Your task to perform on an android device: toggle sleep mode Image 0: 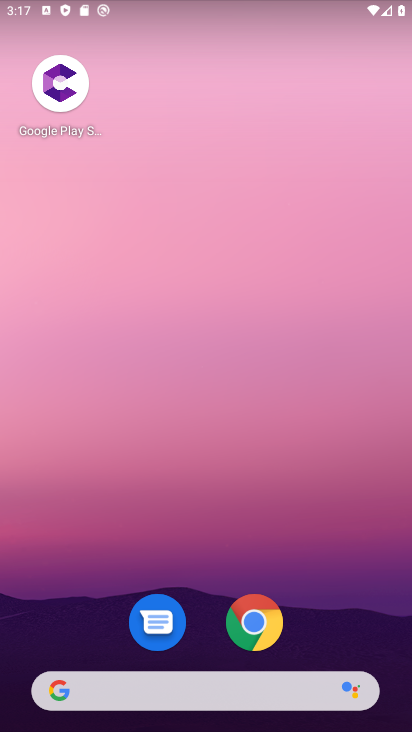
Step 0: drag from (236, 731) to (248, 22)
Your task to perform on an android device: toggle sleep mode Image 1: 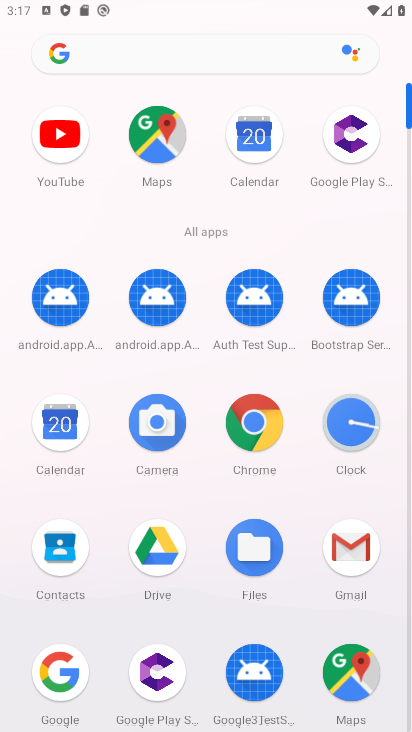
Step 1: drag from (303, 613) to (266, 9)
Your task to perform on an android device: toggle sleep mode Image 2: 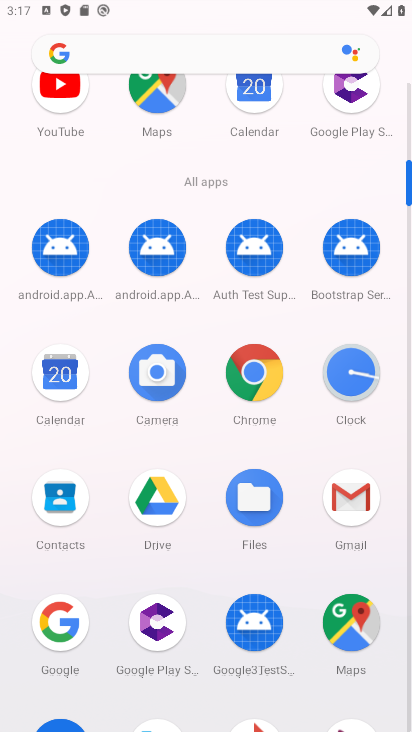
Step 2: drag from (336, 704) to (267, 63)
Your task to perform on an android device: toggle sleep mode Image 3: 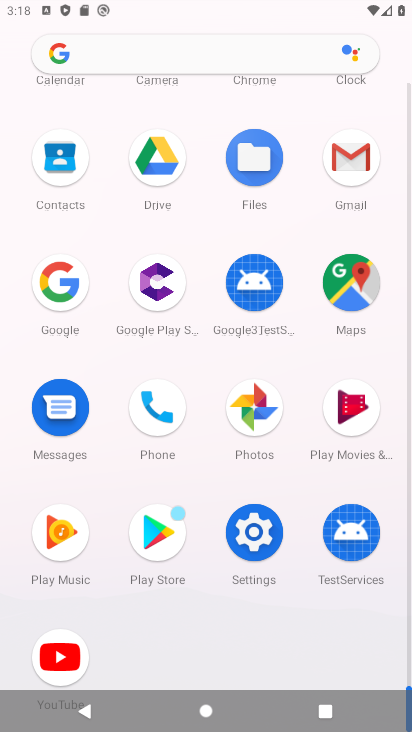
Step 3: click (246, 543)
Your task to perform on an android device: toggle sleep mode Image 4: 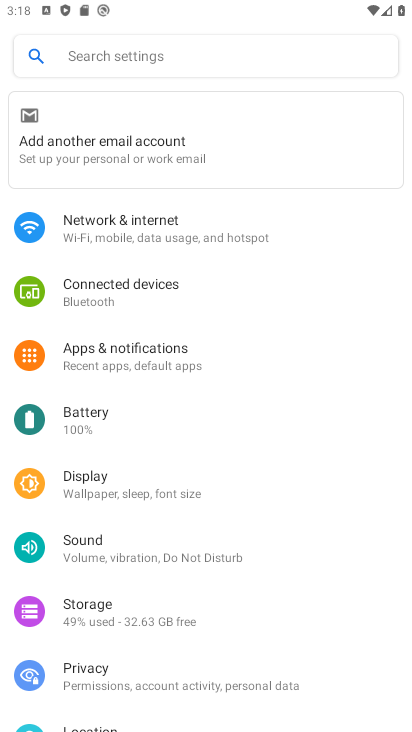
Step 4: click (186, 485)
Your task to perform on an android device: toggle sleep mode Image 5: 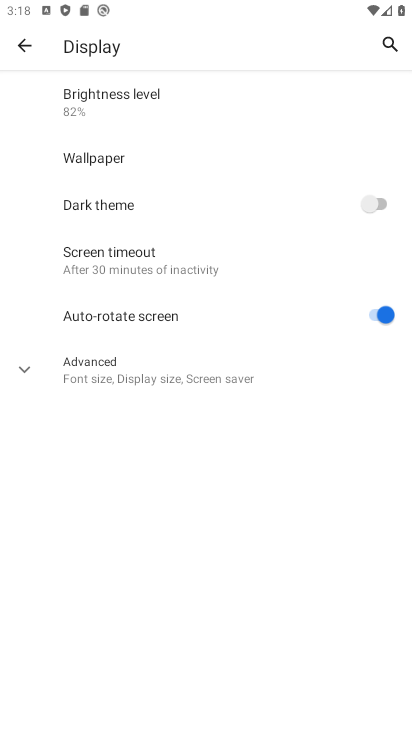
Step 5: task complete